Your task to perform on an android device: Open eBay Image 0: 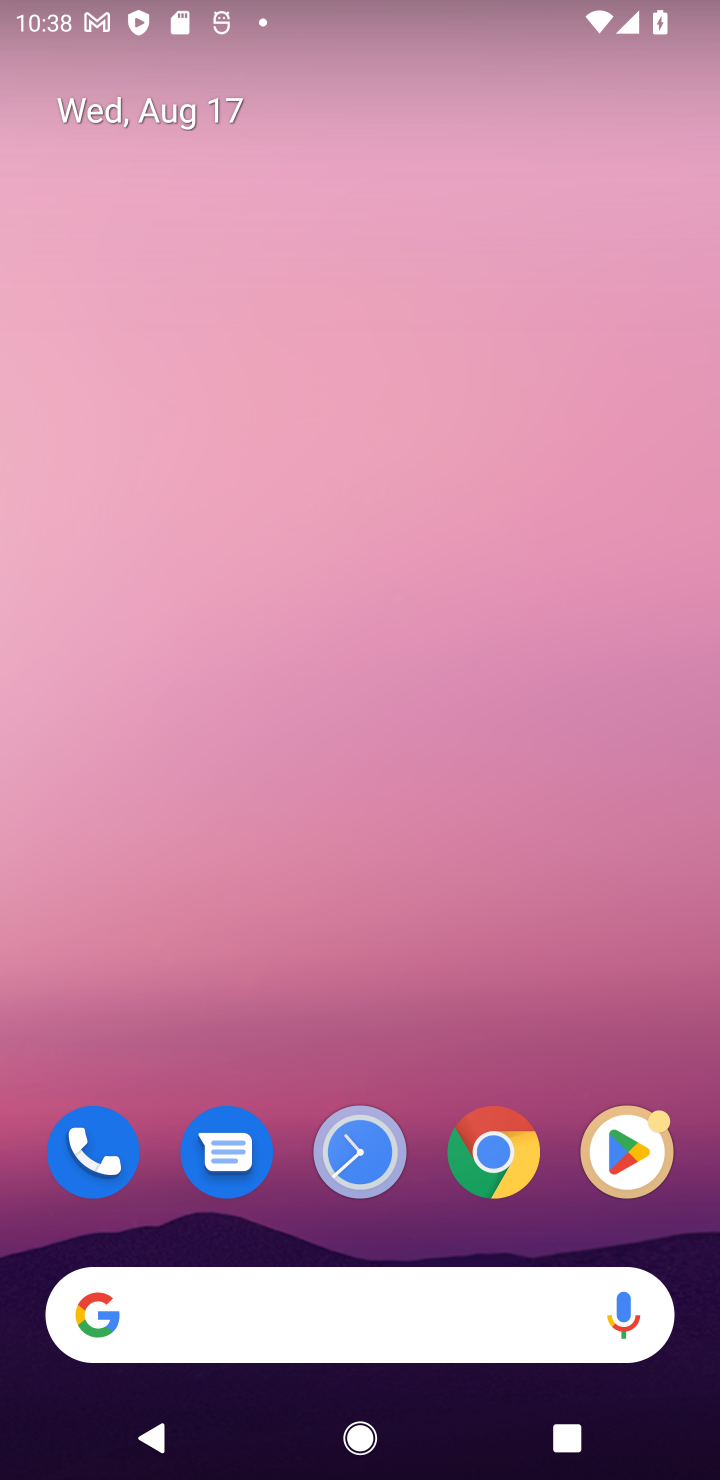
Step 0: press home button
Your task to perform on an android device: Open eBay Image 1: 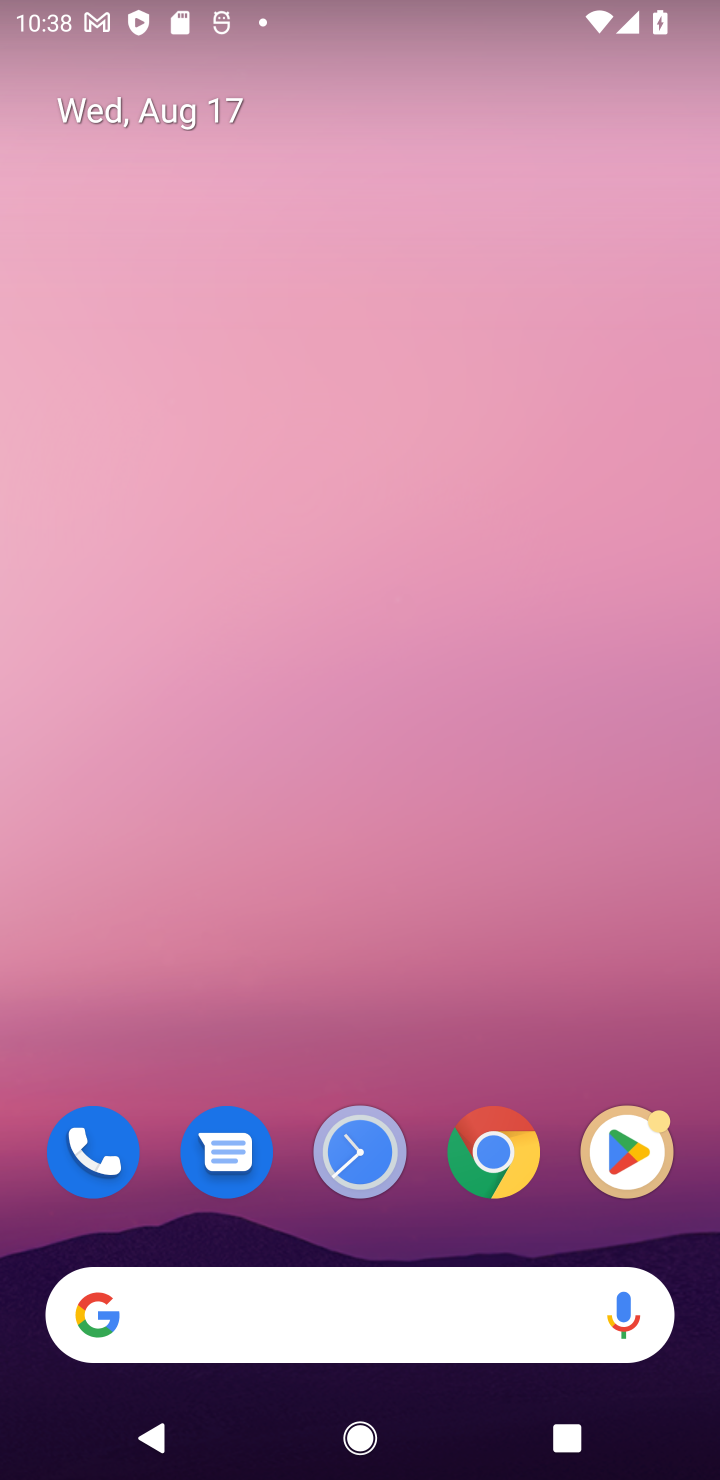
Step 1: drag from (558, 1243) to (375, 0)
Your task to perform on an android device: Open eBay Image 2: 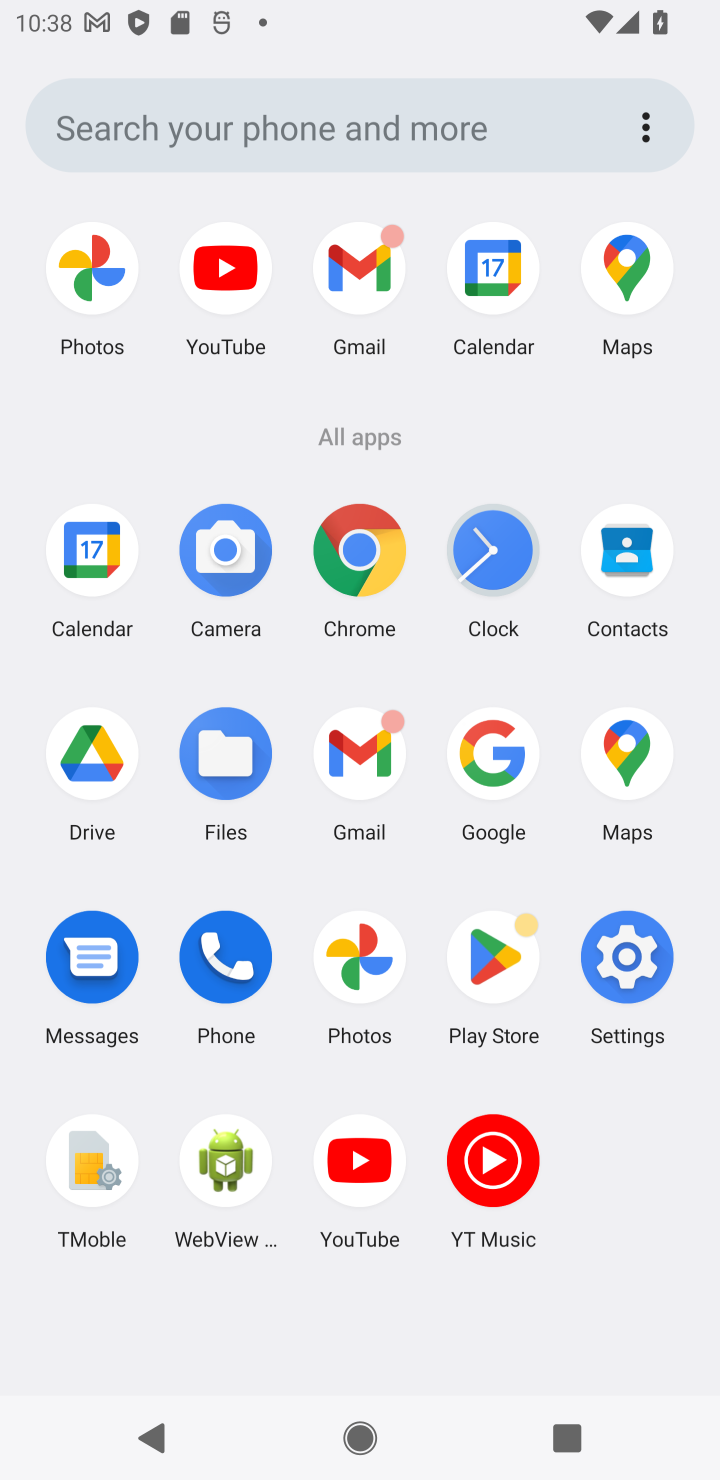
Step 2: click (464, 772)
Your task to perform on an android device: Open eBay Image 3: 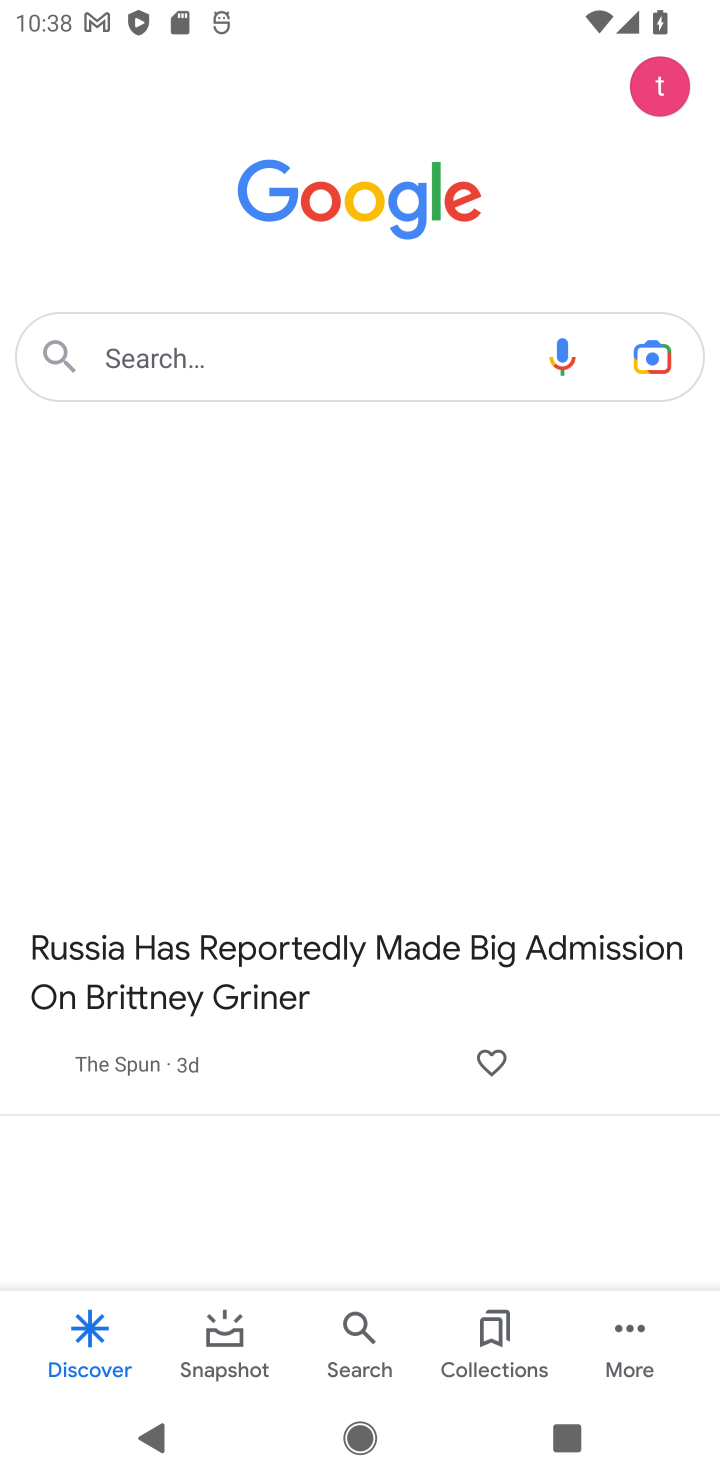
Step 3: click (141, 354)
Your task to perform on an android device: Open eBay Image 4: 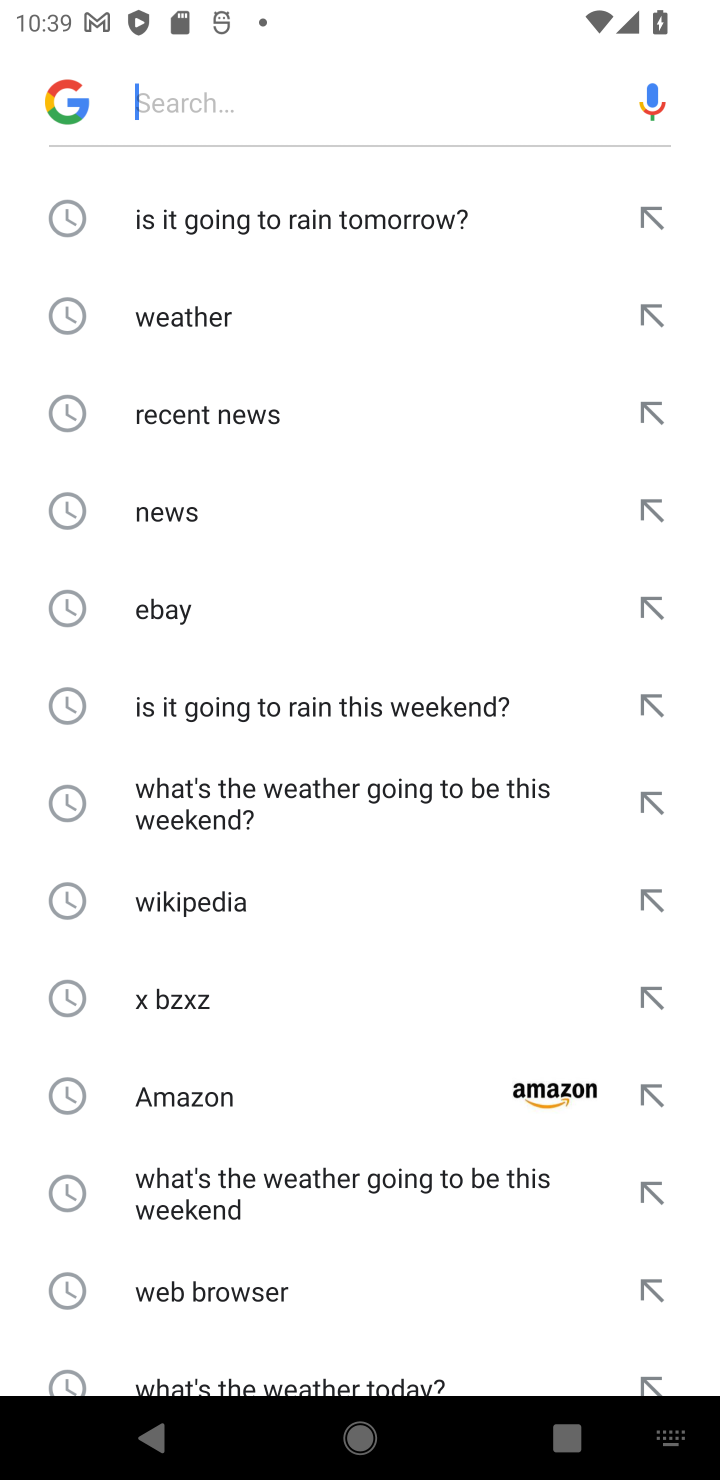
Step 4: click (202, 608)
Your task to perform on an android device: Open eBay Image 5: 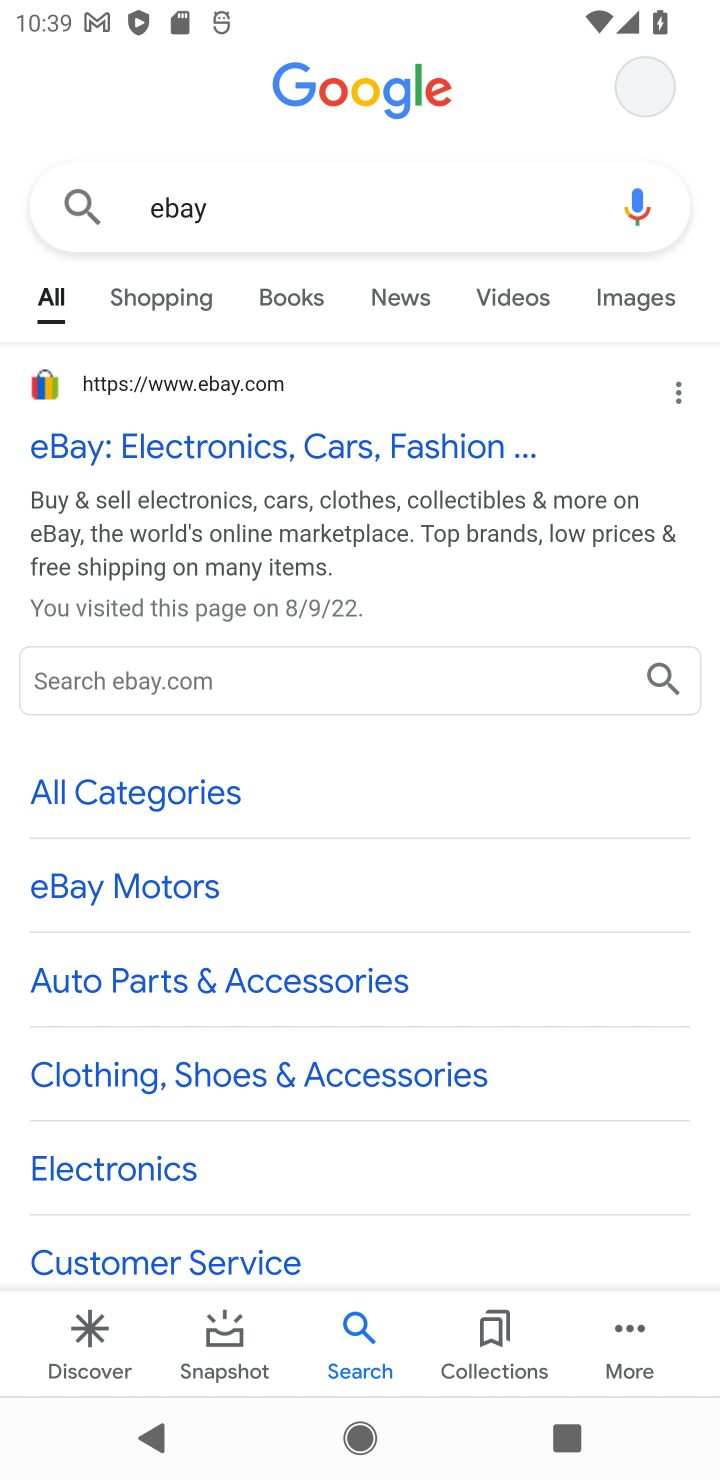
Step 5: task complete